Your task to perform on an android device: Open ESPN.com Image 0: 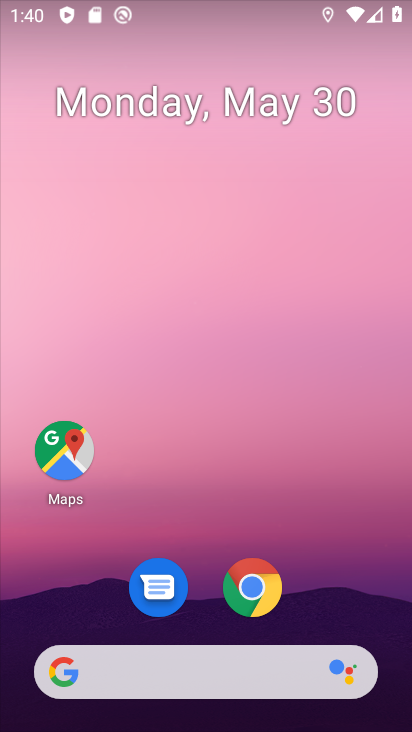
Step 0: click (260, 600)
Your task to perform on an android device: Open ESPN.com Image 1: 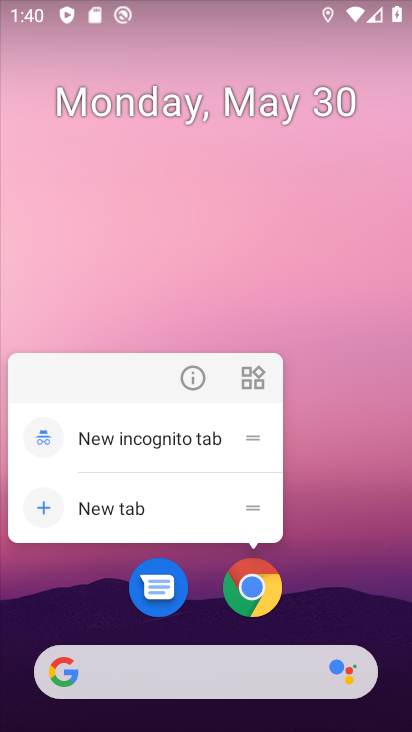
Step 1: click (255, 583)
Your task to perform on an android device: Open ESPN.com Image 2: 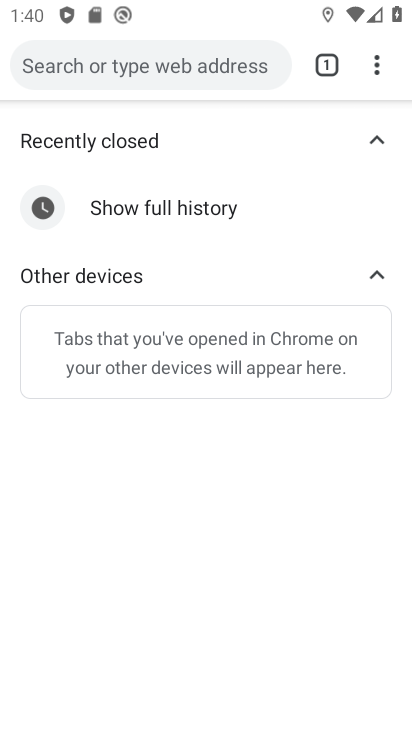
Step 2: click (329, 65)
Your task to perform on an android device: Open ESPN.com Image 3: 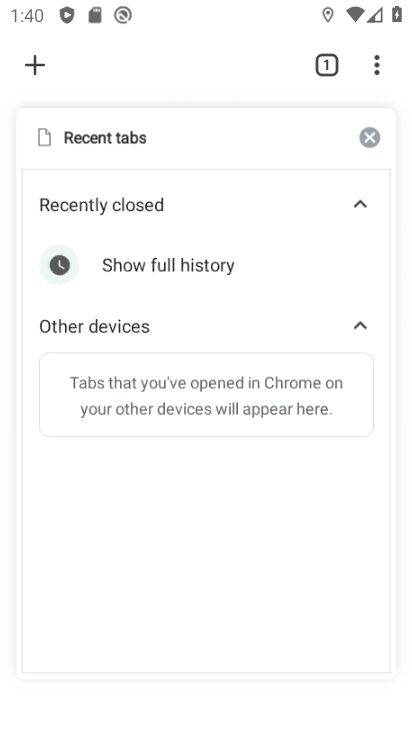
Step 3: click (357, 146)
Your task to perform on an android device: Open ESPN.com Image 4: 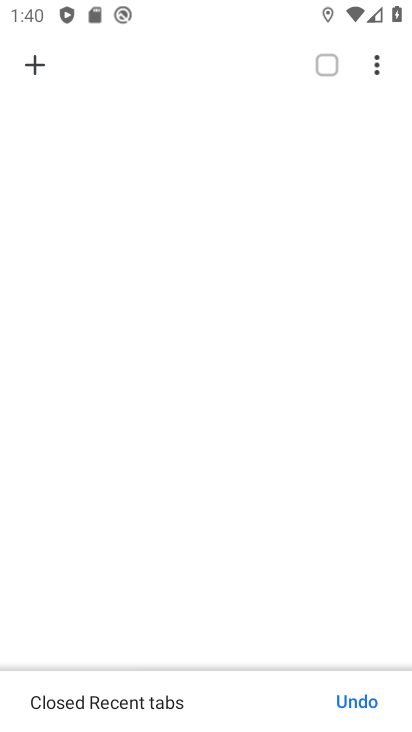
Step 4: click (28, 63)
Your task to perform on an android device: Open ESPN.com Image 5: 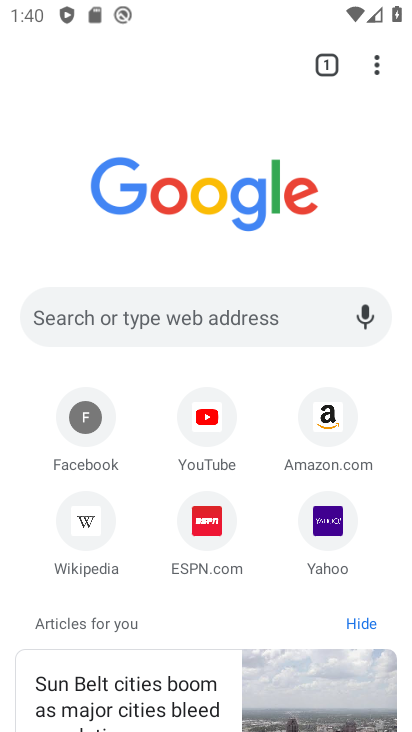
Step 5: click (209, 542)
Your task to perform on an android device: Open ESPN.com Image 6: 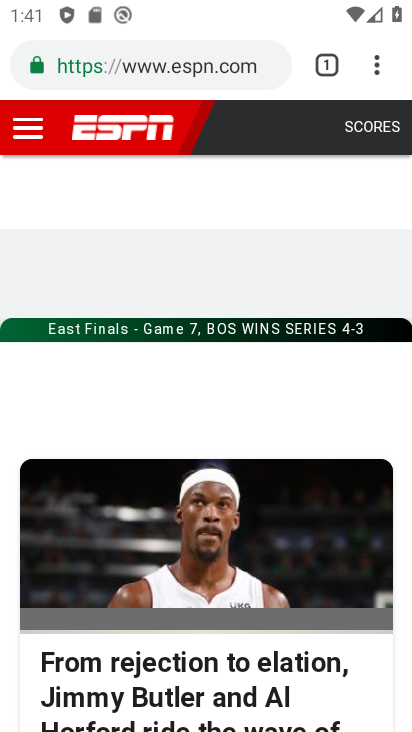
Step 6: task complete